Your task to perform on an android device: Search for a runner rug on Crate & Barrel. Image 0: 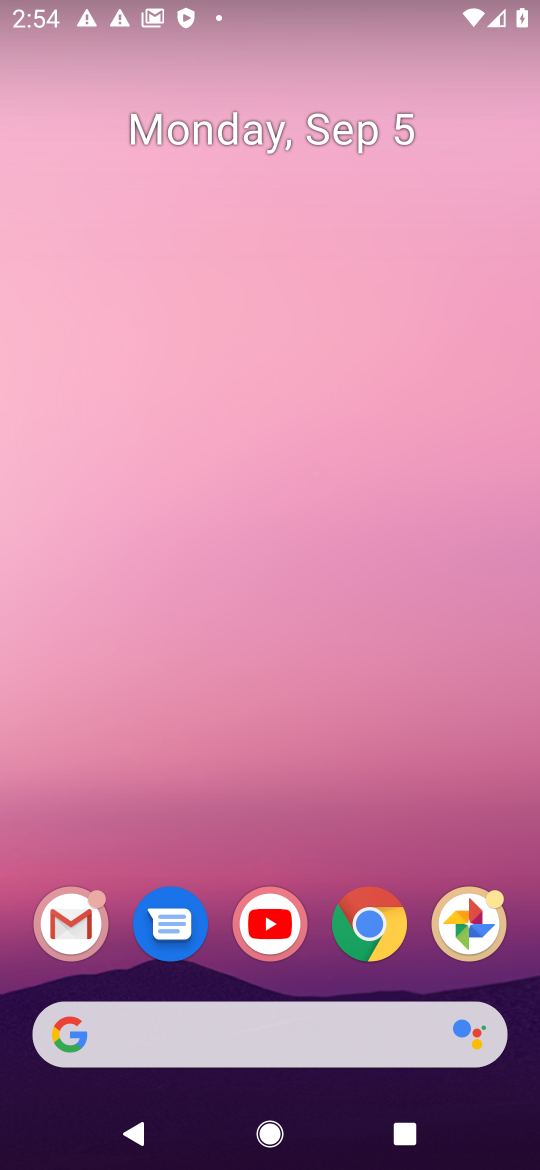
Step 0: drag from (237, 916) to (418, 82)
Your task to perform on an android device: Search for a runner rug on Crate & Barrel. Image 1: 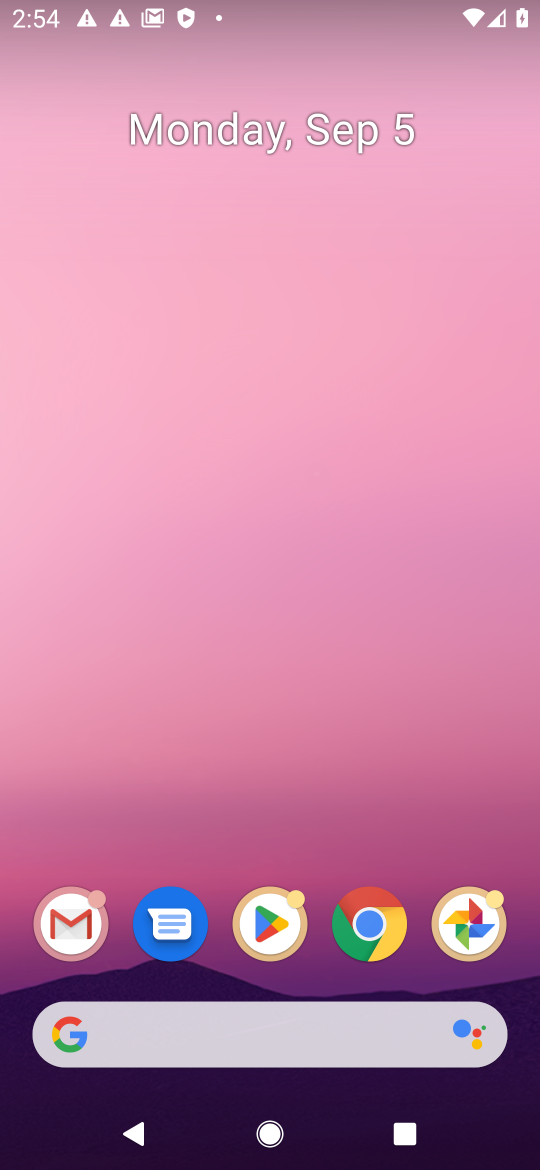
Step 1: drag from (280, 991) to (202, 9)
Your task to perform on an android device: Search for a runner rug on Crate & Barrel. Image 2: 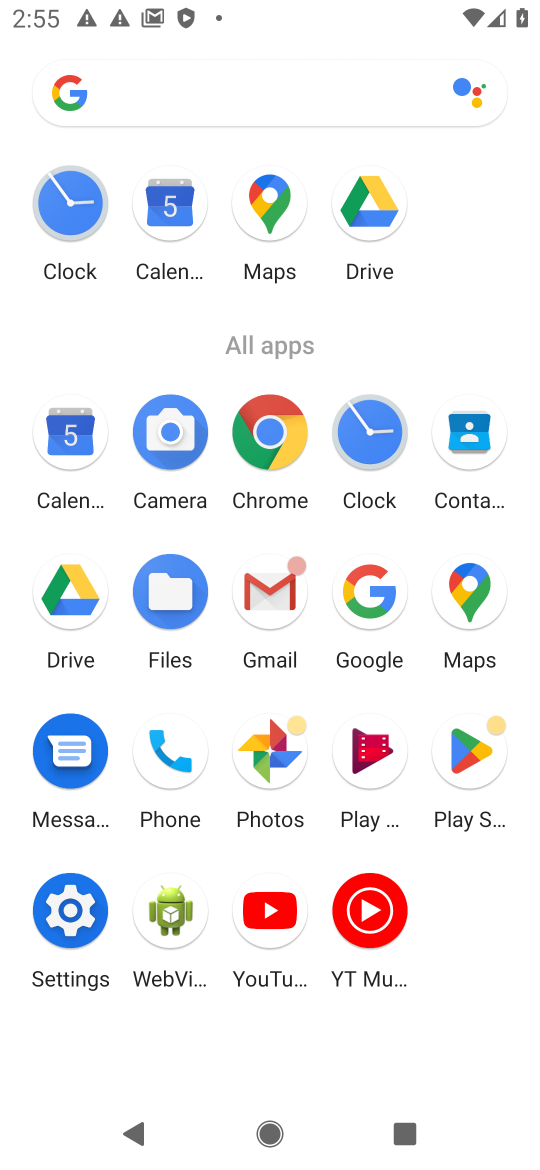
Step 2: click (276, 437)
Your task to perform on an android device: Search for a runner rug on Crate & Barrel. Image 3: 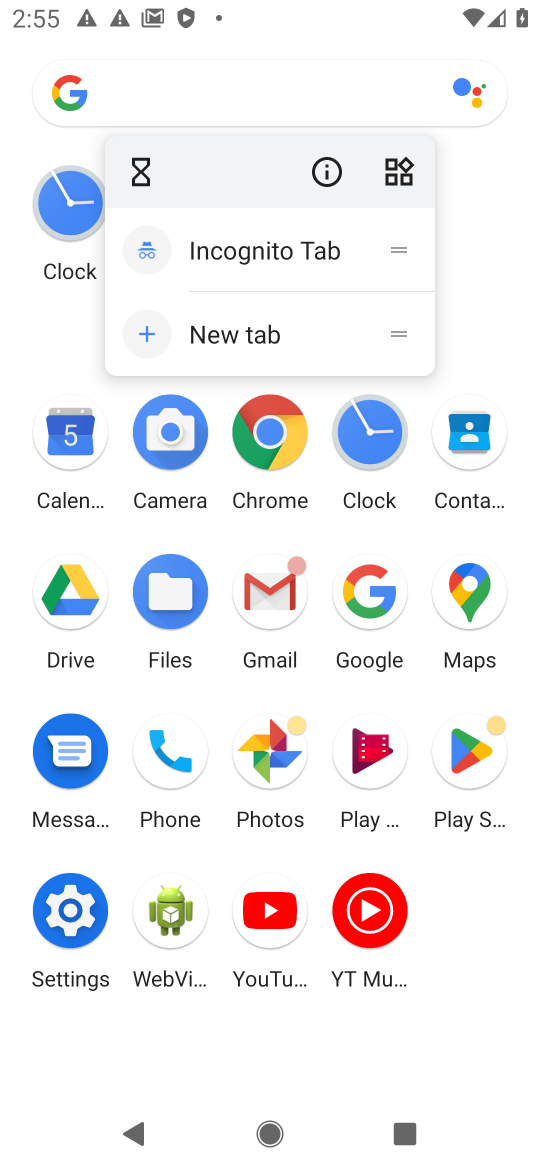
Step 3: click (279, 476)
Your task to perform on an android device: Search for a runner rug on Crate & Barrel. Image 4: 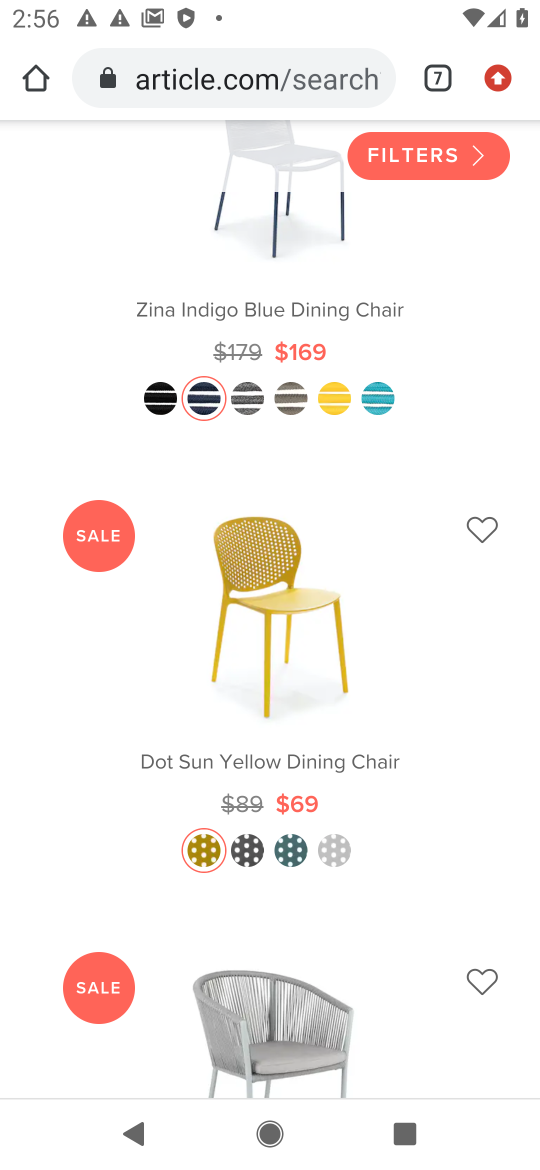
Step 4: click (252, 60)
Your task to perform on an android device: Search for a runner rug on Crate & Barrel. Image 5: 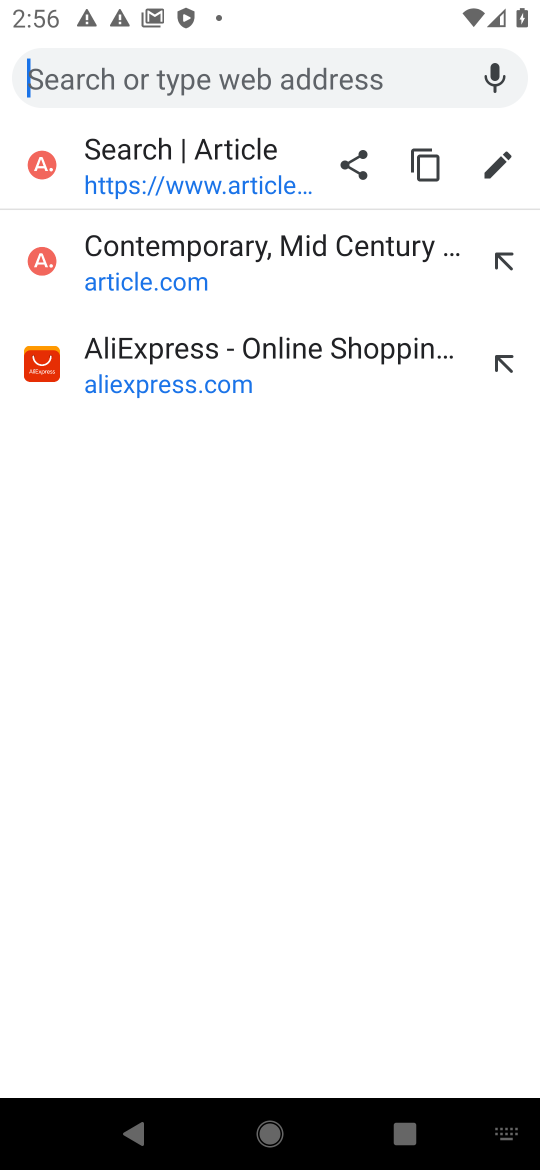
Step 5: type "Crate & Barre"
Your task to perform on an android device: Search for a runner rug on Crate & Barrel. Image 6: 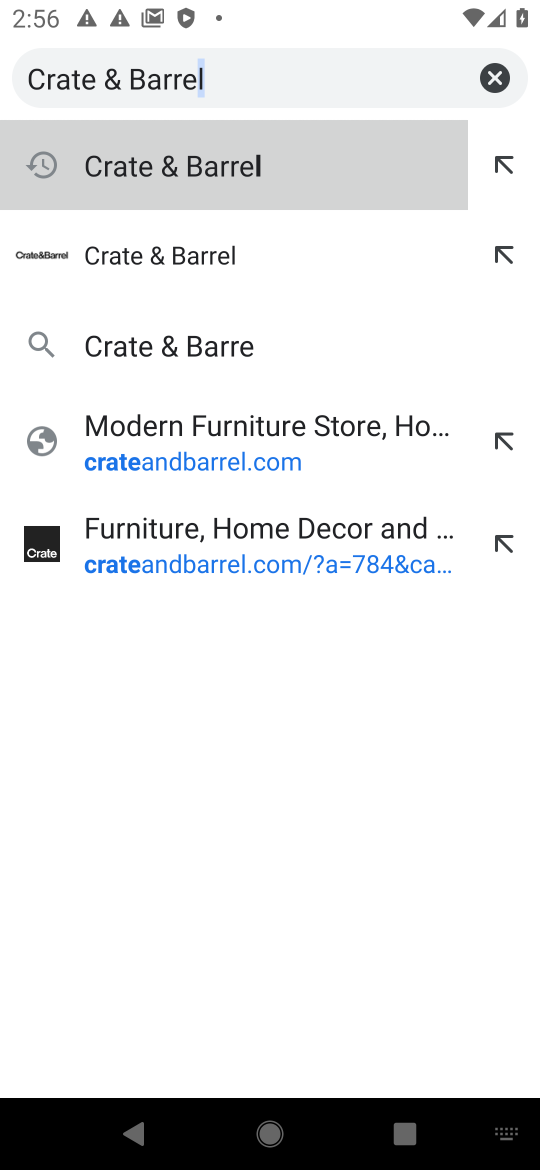
Step 6: click (111, 178)
Your task to perform on an android device: Search for a runner rug on Crate & Barrel. Image 7: 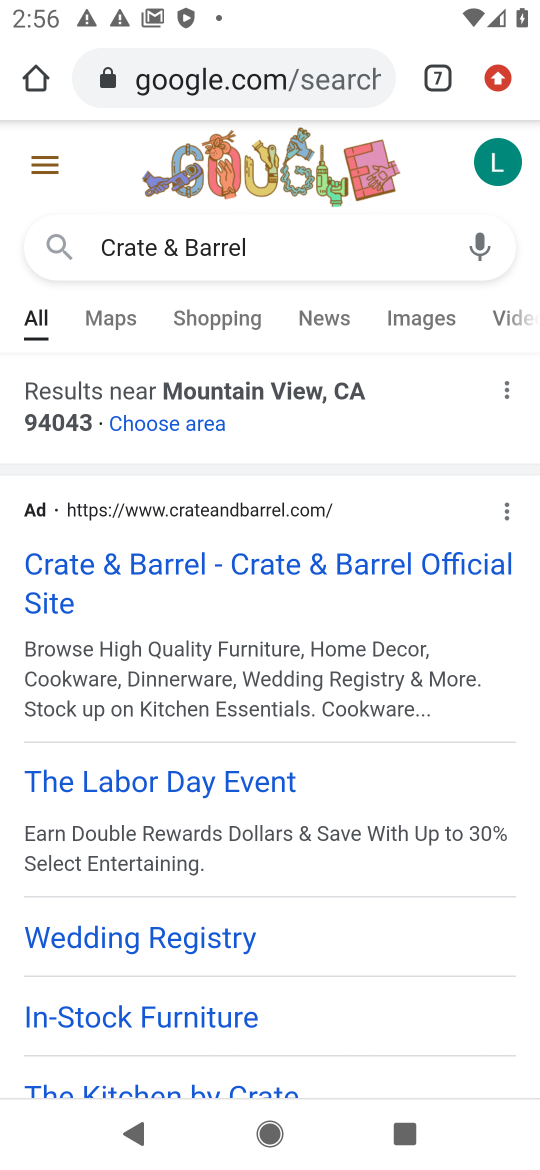
Step 7: task complete